Your task to perform on an android device: Open notification settings Image 0: 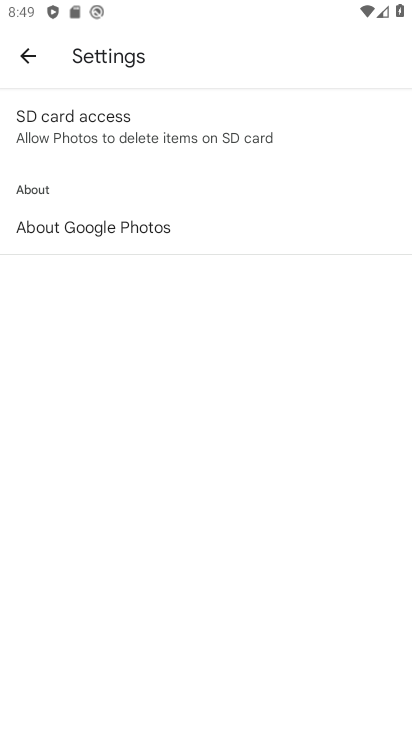
Step 0: press home button
Your task to perform on an android device: Open notification settings Image 1: 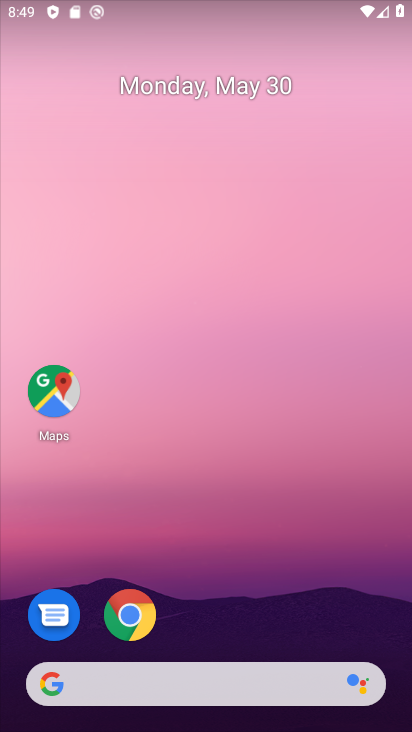
Step 1: drag from (279, 431) to (266, 29)
Your task to perform on an android device: Open notification settings Image 2: 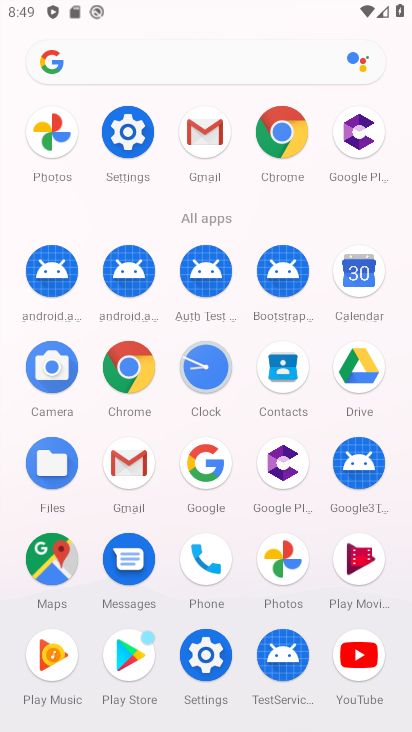
Step 2: click (138, 131)
Your task to perform on an android device: Open notification settings Image 3: 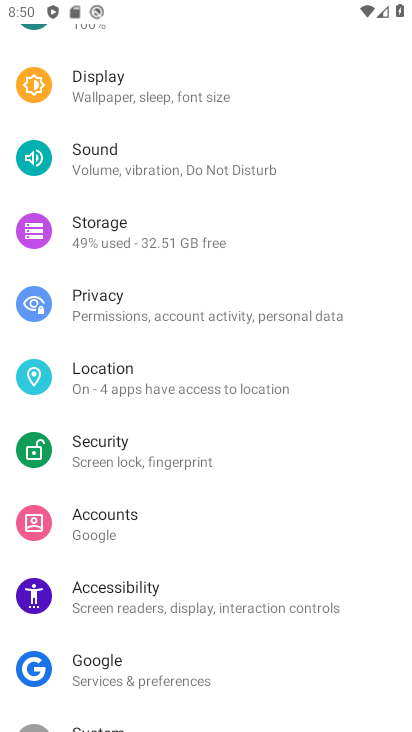
Step 3: drag from (194, 113) to (192, 611)
Your task to perform on an android device: Open notification settings Image 4: 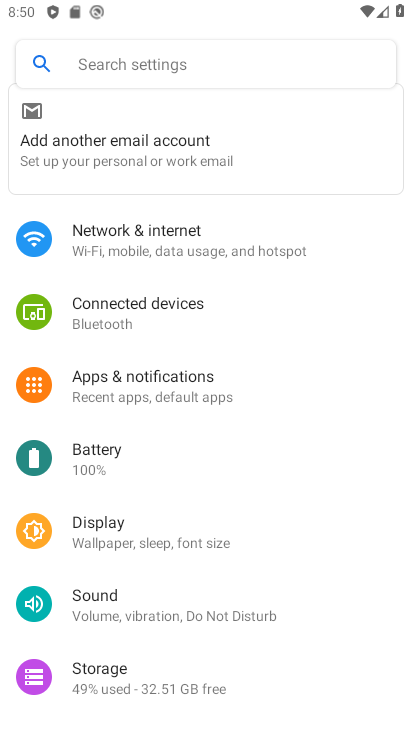
Step 4: click (189, 389)
Your task to perform on an android device: Open notification settings Image 5: 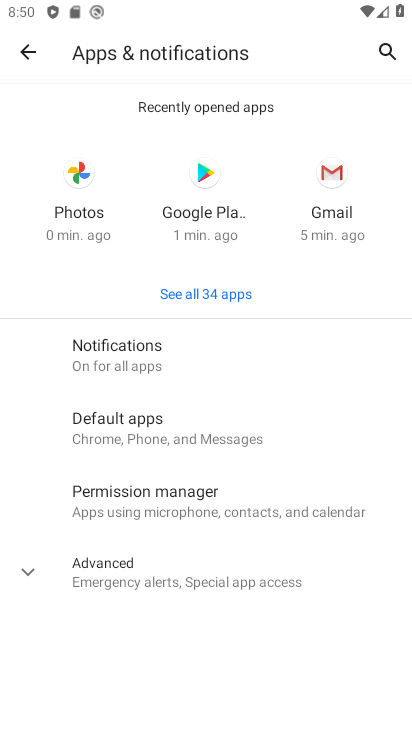
Step 5: task complete